Your task to perform on an android device: Open the map Image 0: 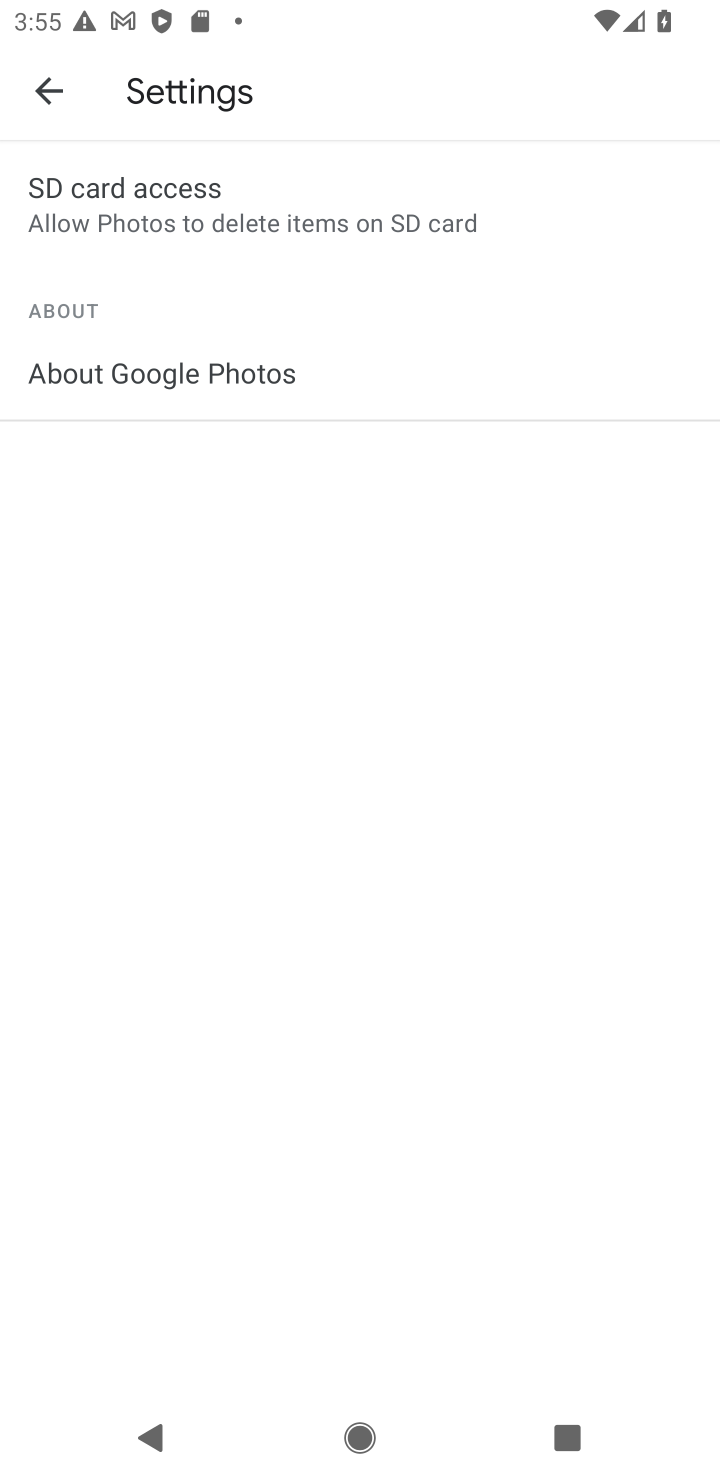
Step 0: press home button
Your task to perform on an android device: Open the map Image 1: 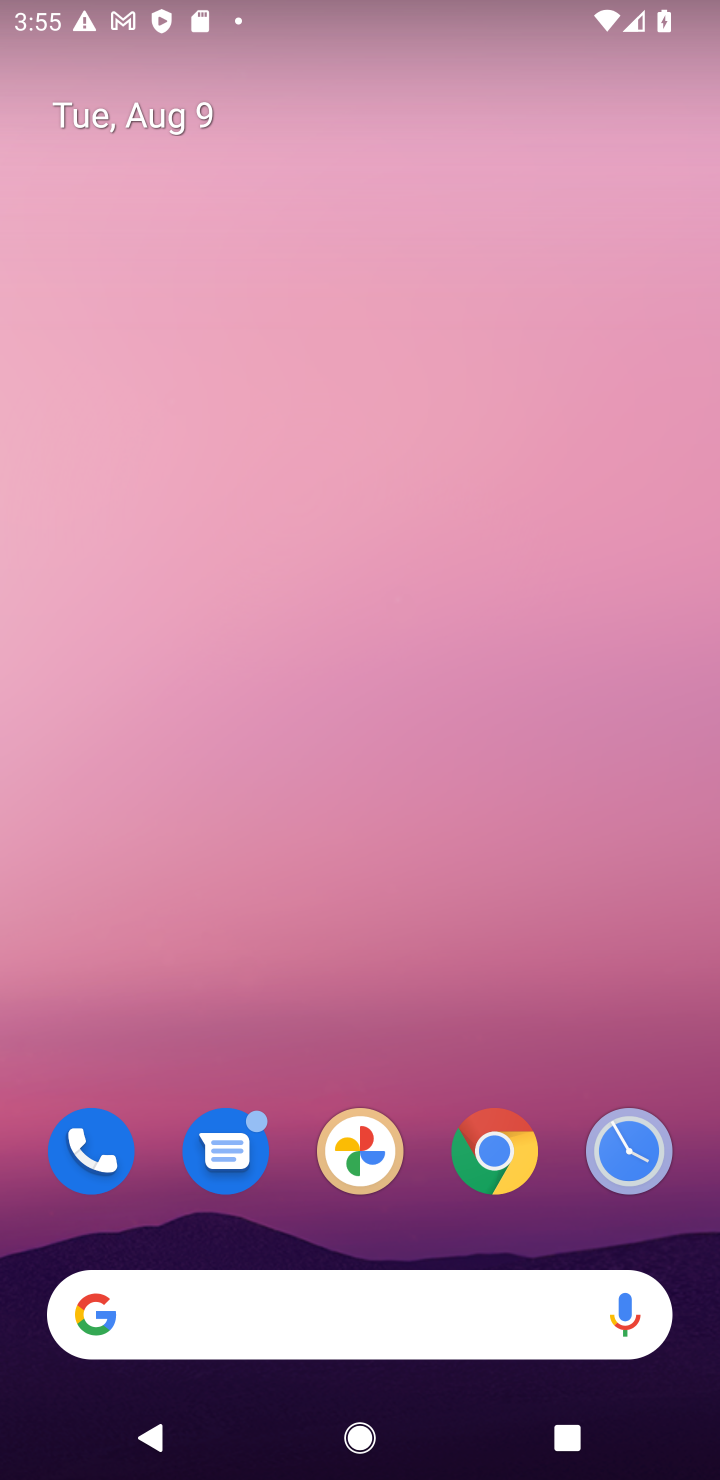
Step 1: drag from (431, 1096) to (402, 59)
Your task to perform on an android device: Open the map Image 2: 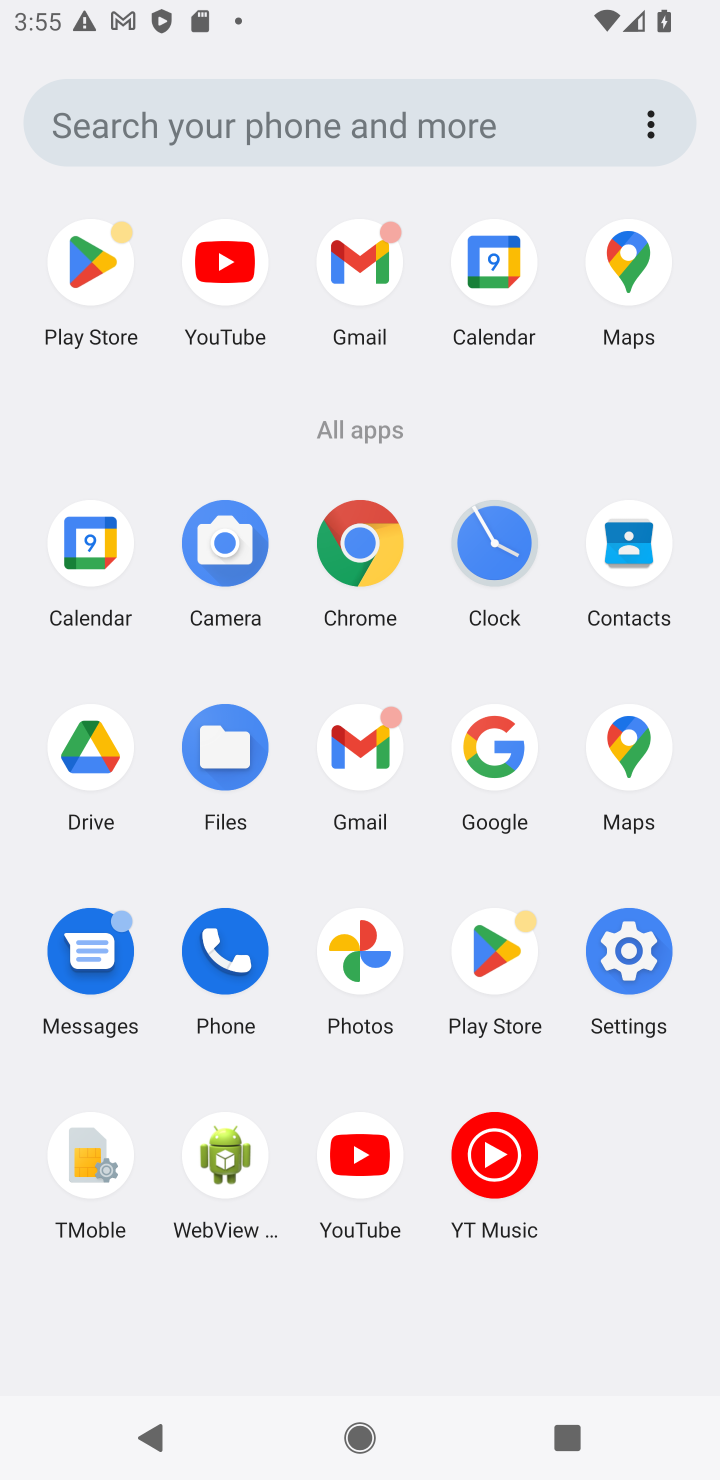
Step 2: click (631, 744)
Your task to perform on an android device: Open the map Image 3: 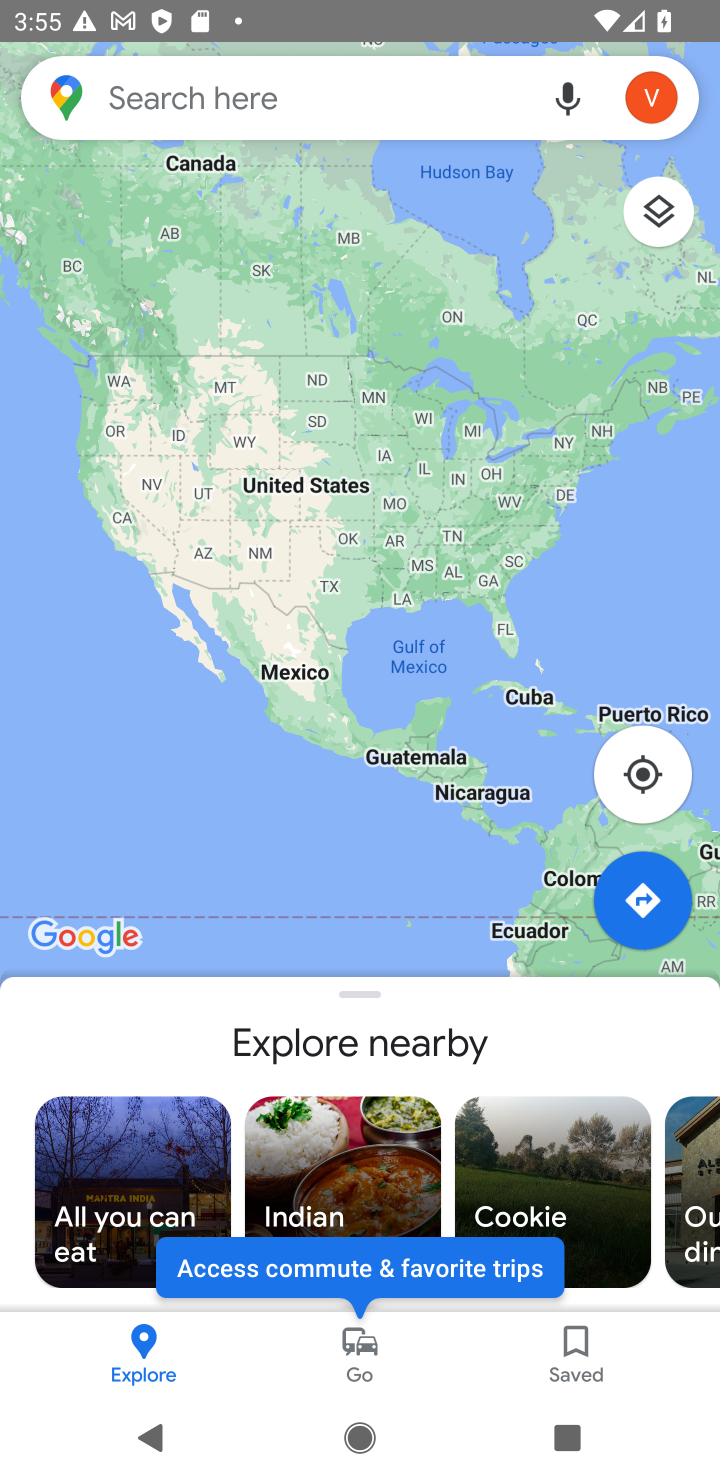
Step 3: task complete